Your task to perform on an android device: Open Google Chrome and click the shortcut for Amazon.com Image 0: 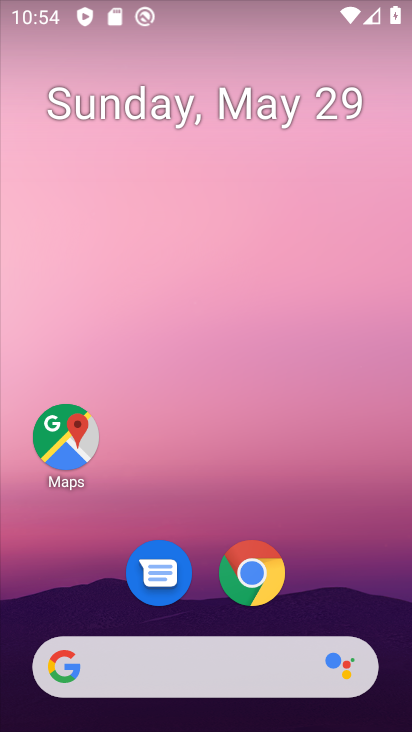
Step 0: click (263, 574)
Your task to perform on an android device: Open Google Chrome and click the shortcut for Amazon.com Image 1: 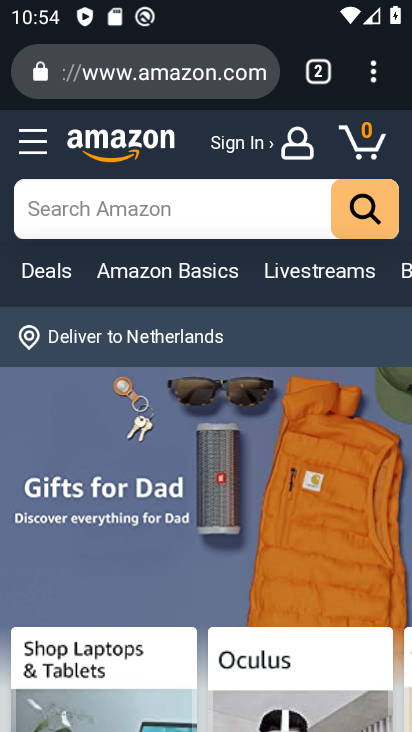
Step 1: task complete